Your task to perform on an android device: turn notification dots off Image 0: 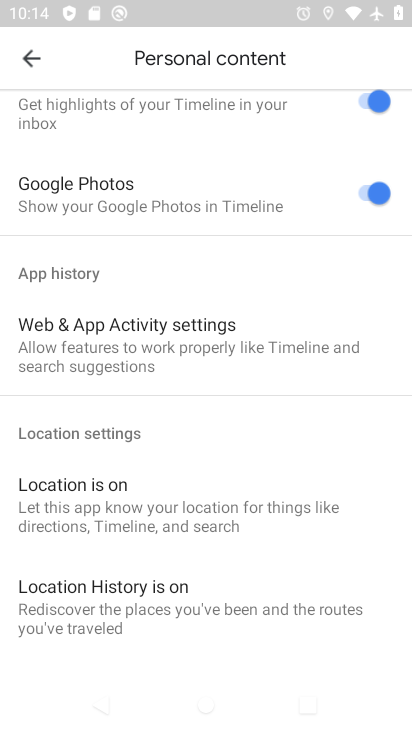
Step 0: click (30, 61)
Your task to perform on an android device: turn notification dots off Image 1: 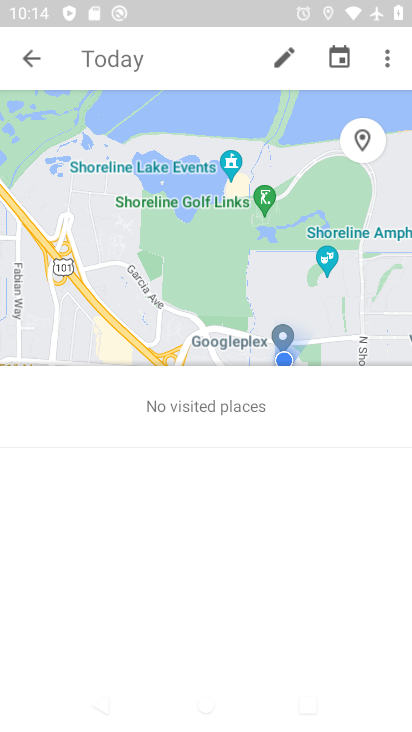
Step 1: press back button
Your task to perform on an android device: turn notification dots off Image 2: 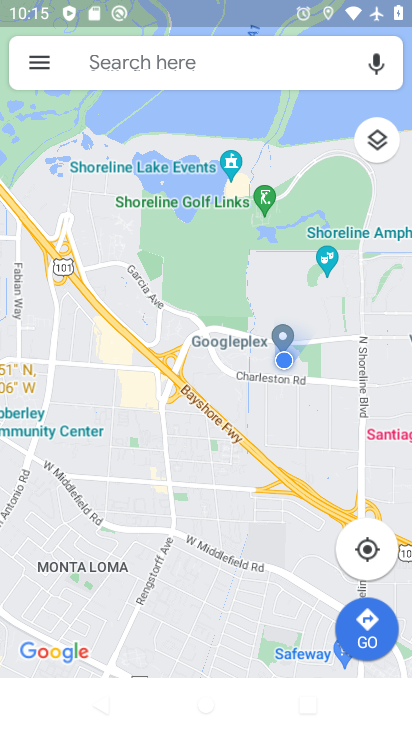
Step 2: press back button
Your task to perform on an android device: turn notification dots off Image 3: 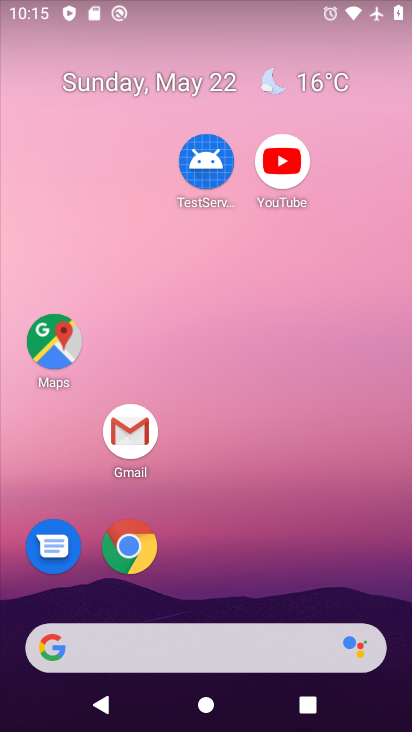
Step 3: drag from (239, 660) to (130, 168)
Your task to perform on an android device: turn notification dots off Image 4: 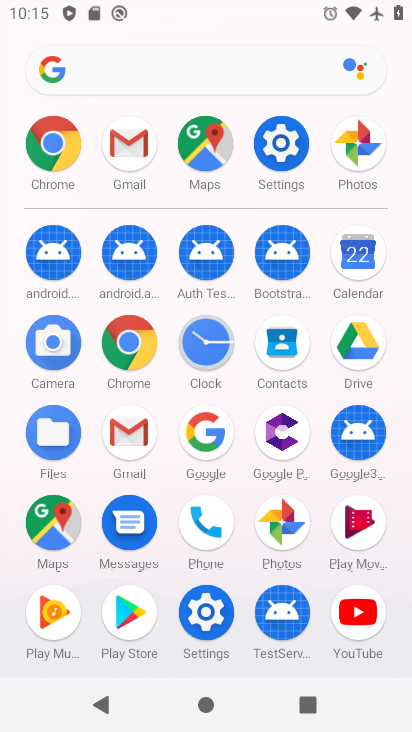
Step 4: click (281, 135)
Your task to perform on an android device: turn notification dots off Image 5: 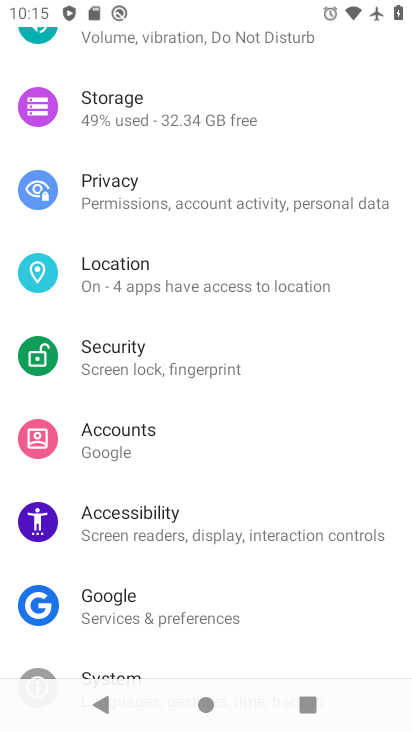
Step 5: drag from (197, 576) to (209, 169)
Your task to perform on an android device: turn notification dots off Image 6: 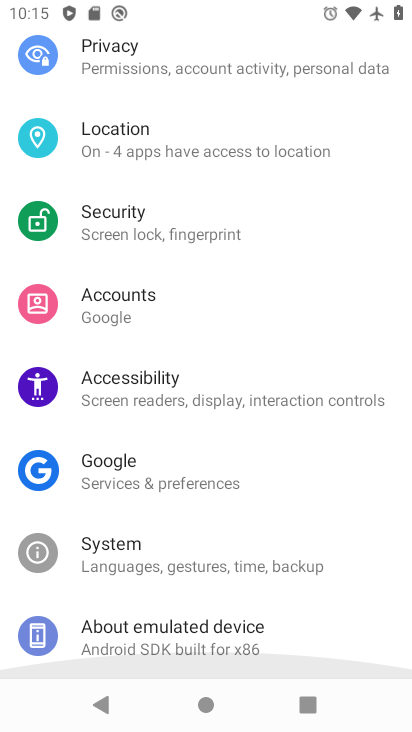
Step 6: drag from (230, 487) to (273, 109)
Your task to perform on an android device: turn notification dots off Image 7: 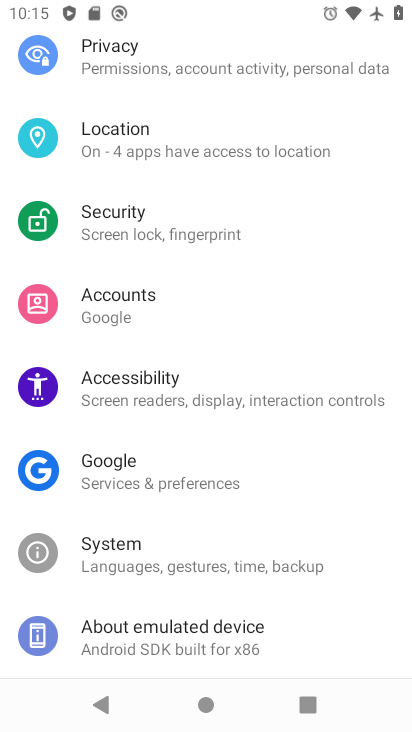
Step 7: drag from (206, 232) to (239, 496)
Your task to perform on an android device: turn notification dots off Image 8: 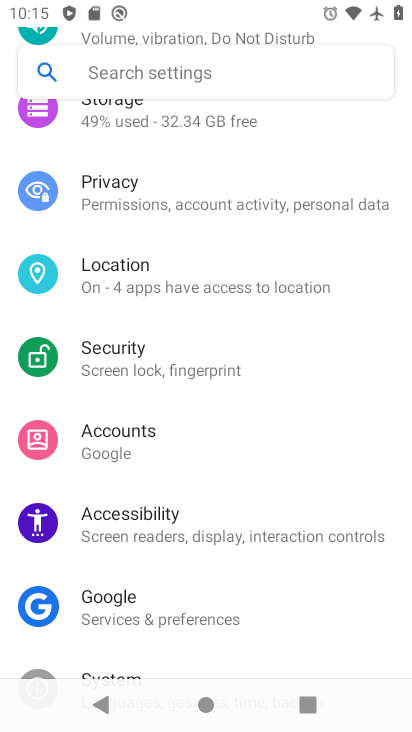
Step 8: drag from (274, 370) to (301, 566)
Your task to perform on an android device: turn notification dots off Image 9: 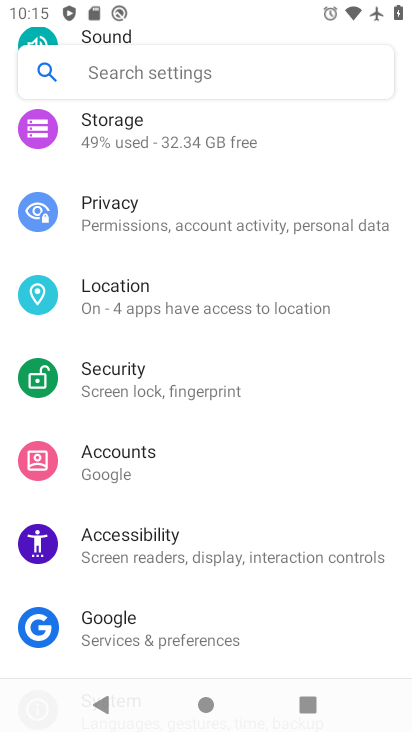
Step 9: drag from (313, 275) to (303, 487)
Your task to perform on an android device: turn notification dots off Image 10: 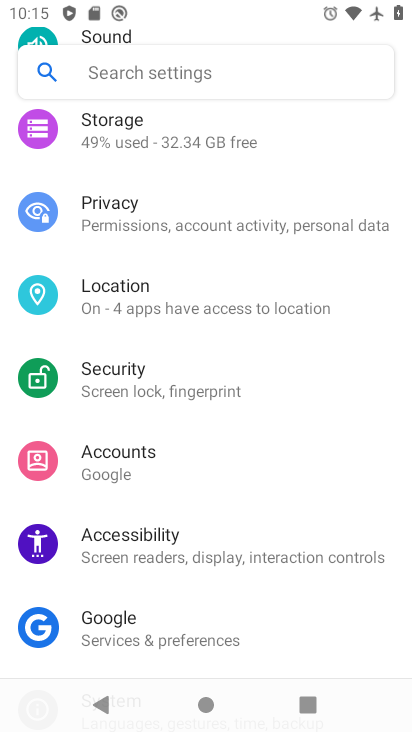
Step 10: drag from (301, 246) to (310, 699)
Your task to perform on an android device: turn notification dots off Image 11: 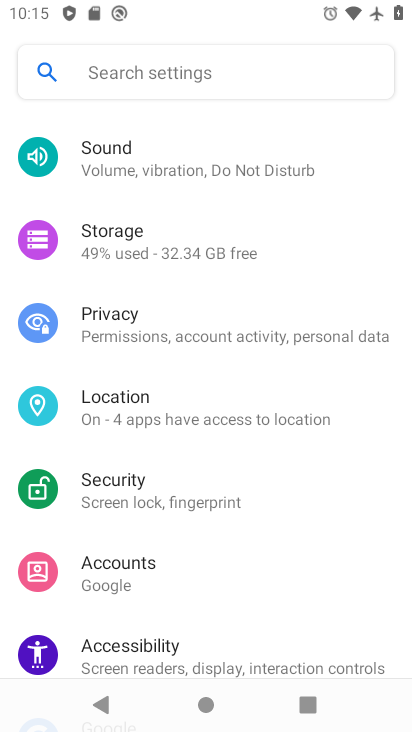
Step 11: drag from (323, 234) to (323, 493)
Your task to perform on an android device: turn notification dots off Image 12: 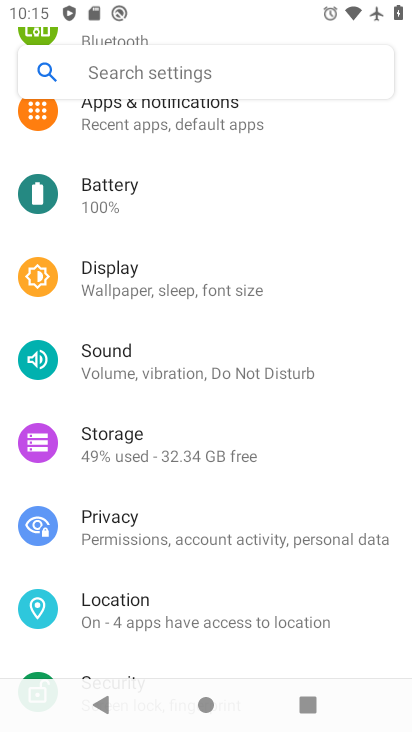
Step 12: drag from (235, 192) to (267, 444)
Your task to perform on an android device: turn notification dots off Image 13: 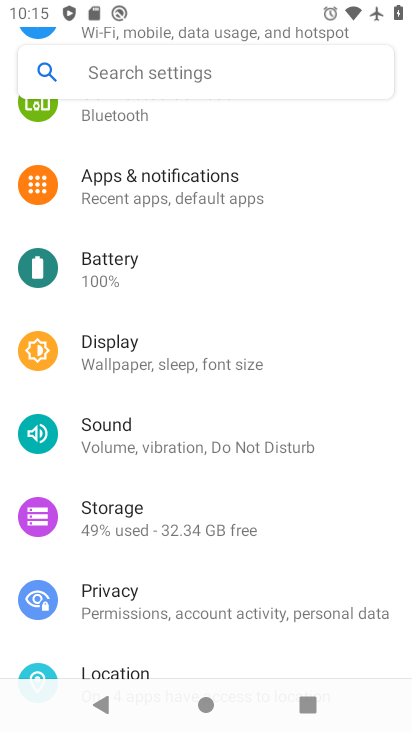
Step 13: drag from (237, 186) to (254, 543)
Your task to perform on an android device: turn notification dots off Image 14: 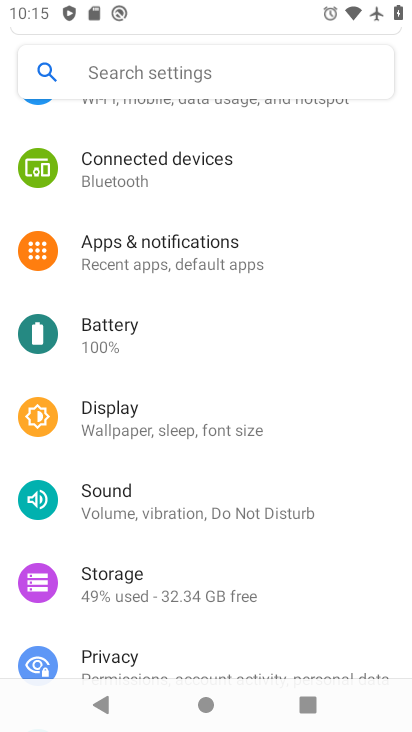
Step 14: click (125, 266)
Your task to perform on an android device: turn notification dots off Image 15: 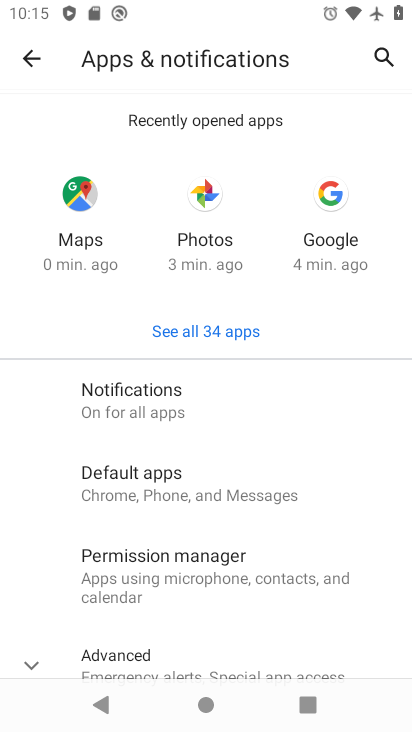
Step 15: click (112, 370)
Your task to perform on an android device: turn notification dots off Image 16: 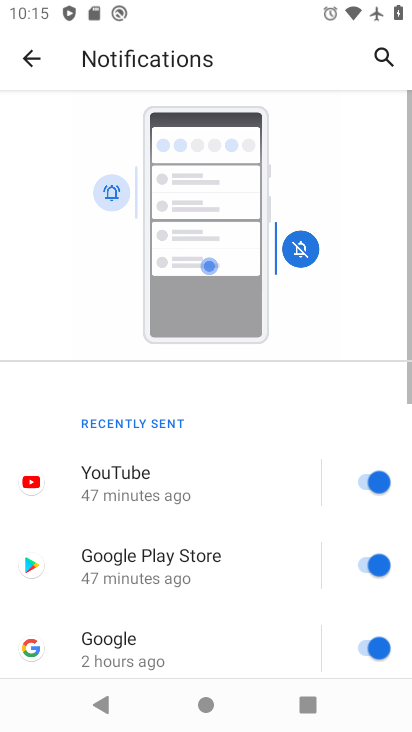
Step 16: drag from (265, 524) to (301, 76)
Your task to perform on an android device: turn notification dots off Image 17: 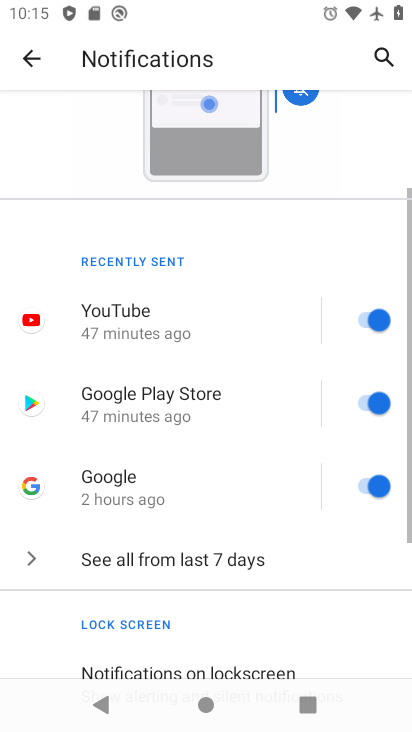
Step 17: drag from (280, 423) to (280, 134)
Your task to perform on an android device: turn notification dots off Image 18: 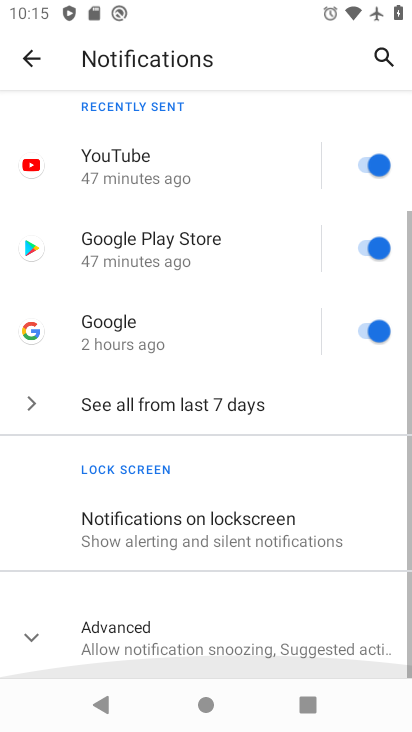
Step 18: drag from (254, 445) to (293, 173)
Your task to perform on an android device: turn notification dots off Image 19: 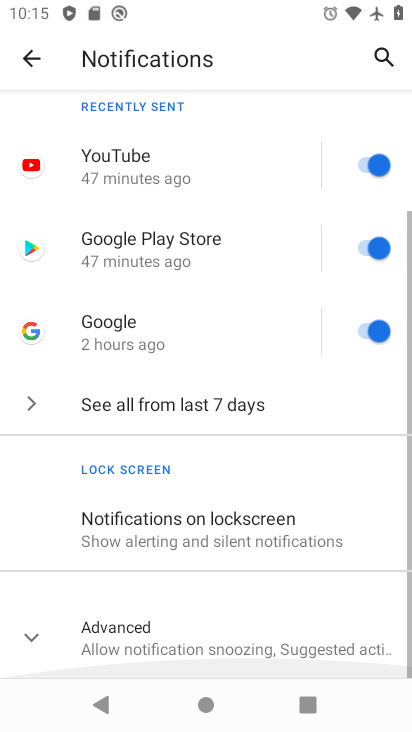
Step 19: drag from (299, 423) to (326, 208)
Your task to perform on an android device: turn notification dots off Image 20: 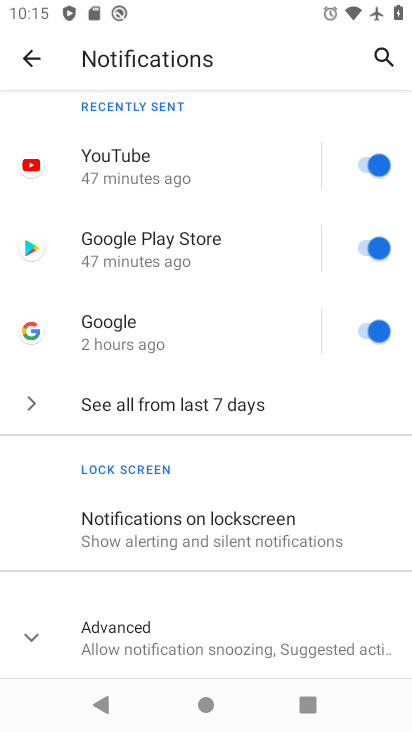
Step 20: click (116, 637)
Your task to perform on an android device: turn notification dots off Image 21: 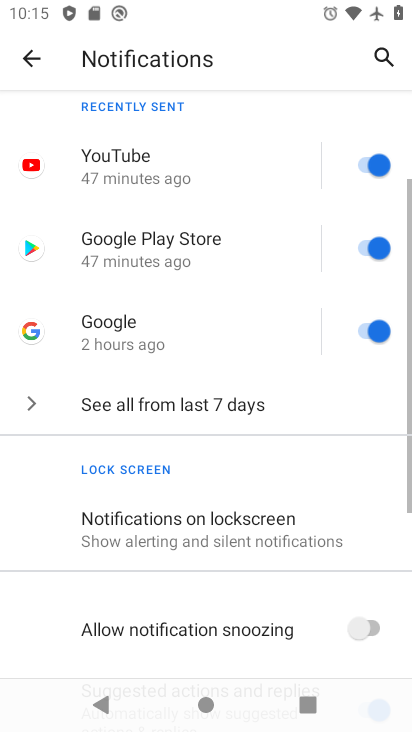
Step 21: task complete